Your task to perform on an android device: Install the Lyft app Image 0: 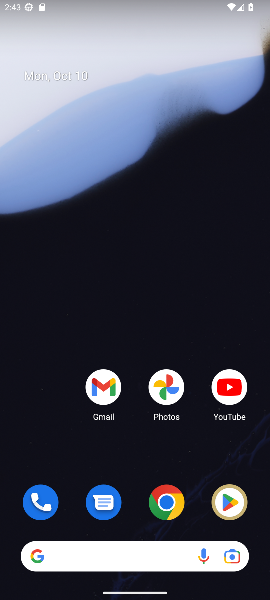
Step 0: click (269, 157)
Your task to perform on an android device: Install the Lyft app Image 1: 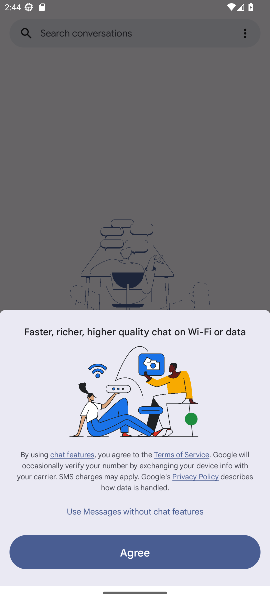
Step 1: press home button
Your task to perform on an android device: Install the Lyft app Image 2: 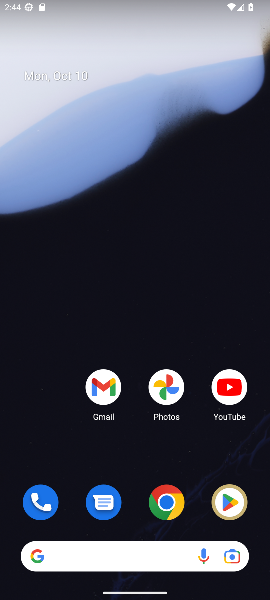
Step 2: drag from (138, 520) to (150, 155)
Your task to perform on an android device: Install the Lyft app Image 3: 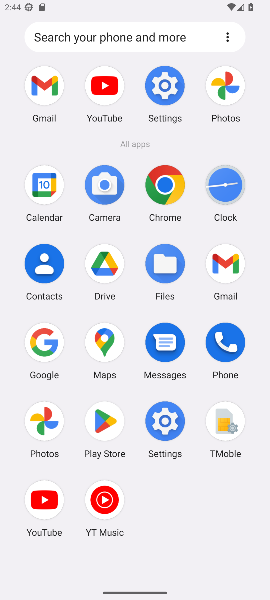
Step 3: click (100, 429)
Your task to perform on an android device: Install the Lyft app Image 4: 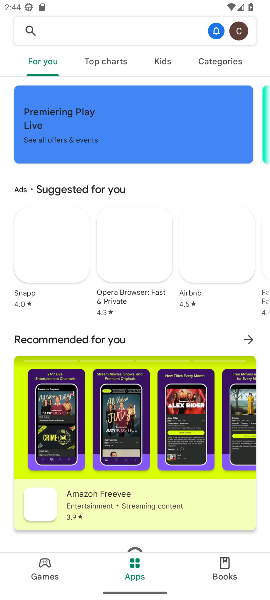
Step 4: click (147, 27)
Your task to perform on an android device: Install the Lyft app Image 5: 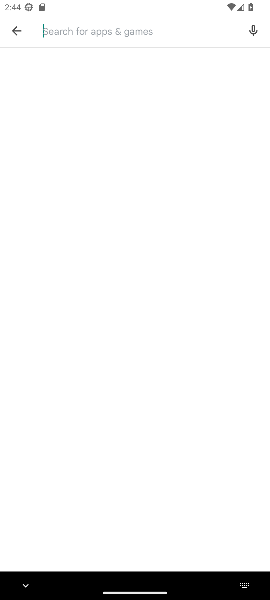
Step 5: type "lyft app"
Your task to perform on an android device: Install the Lyft app Image 6: 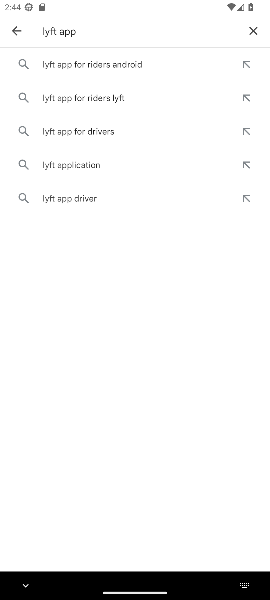
Step 6: click (81, 164)
Your task to perform on an android device: Install the Lyft app Image 7: 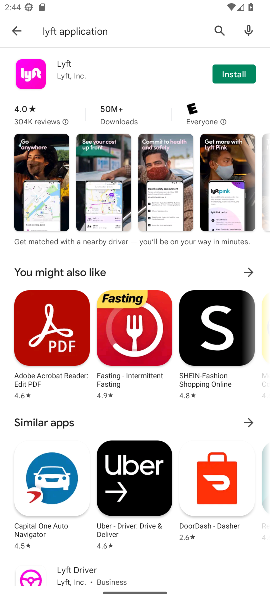
Step 7: click (228, 77)
Your task to perform on an android device: Install the Lyft app Image 8: 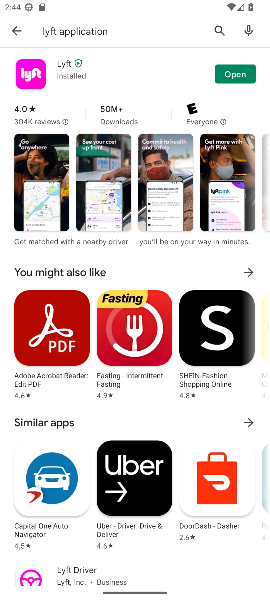
Step 8: task complete